Your task to perform on an android device: turn off javascript in the chrome app Image 0: 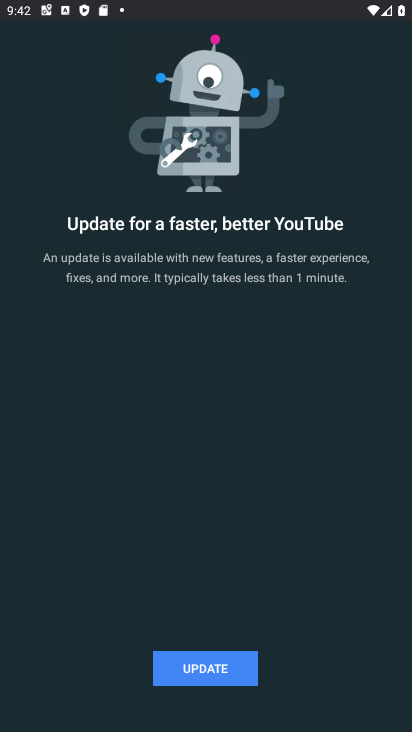
Step 0: press home button
Your task to perform on an android device: turn off javascript in the chrome app Image 1: 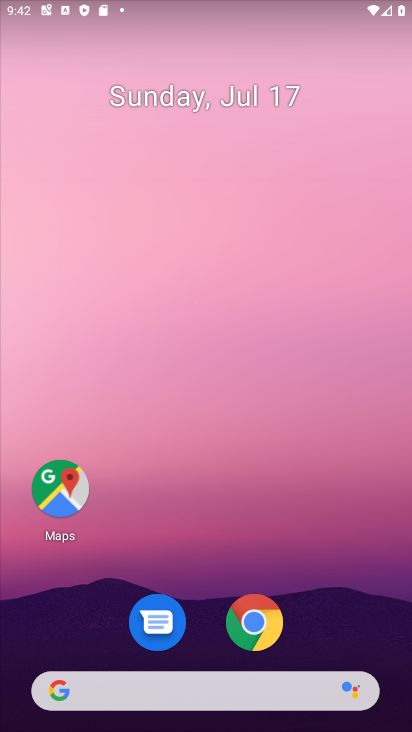
Step 1: click (270, 625)
Your task to perform on an android device: turn off javascript in the chrome app Image 2: 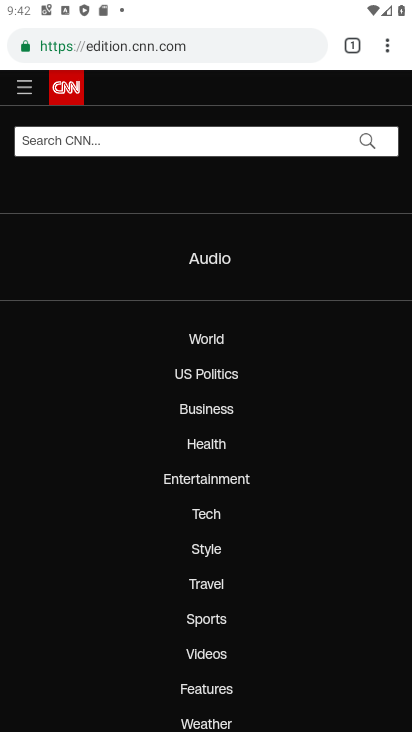
Step 2: click (390, 45)
Your task to perform on an android device: turn off javascript in the chrome app Image 3: 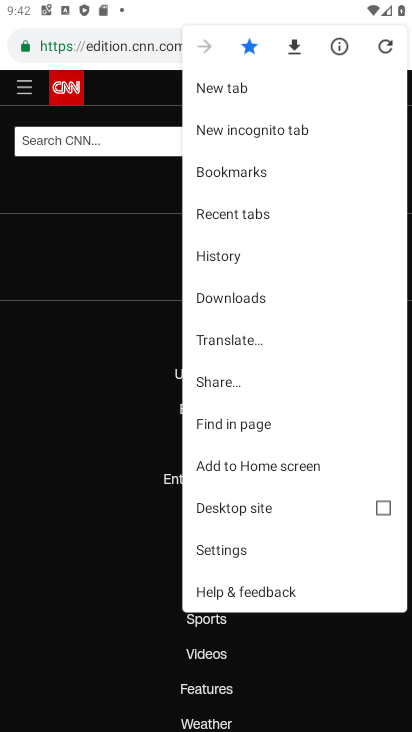
Step 3: click (257, 549)
Your task to perform on an android device: turn off javascript in the chrome app Image 4: 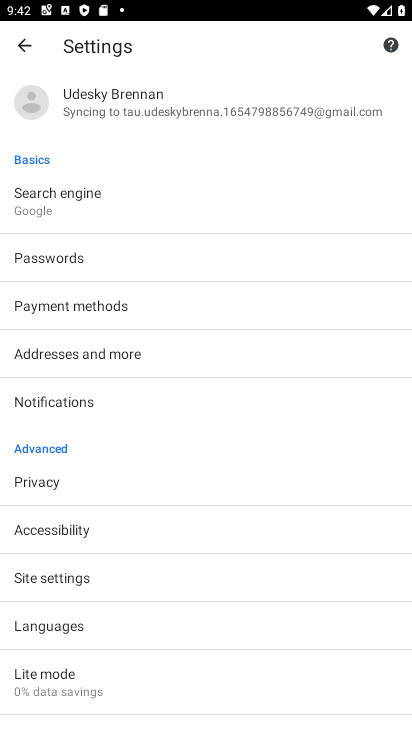
Step 4: click (68, 580)
Your task to perform on an android device: turn off javascript in the chrome app Image 5: 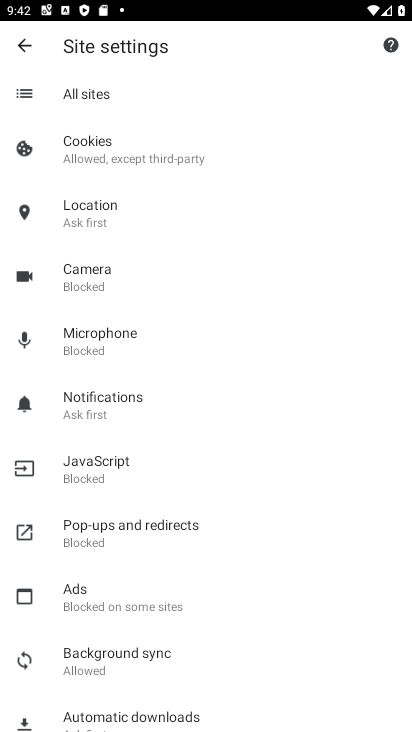
Step 5: click (118, 473)
Your task to perform on an android device: turn off javascript in the chrome app Image 6: 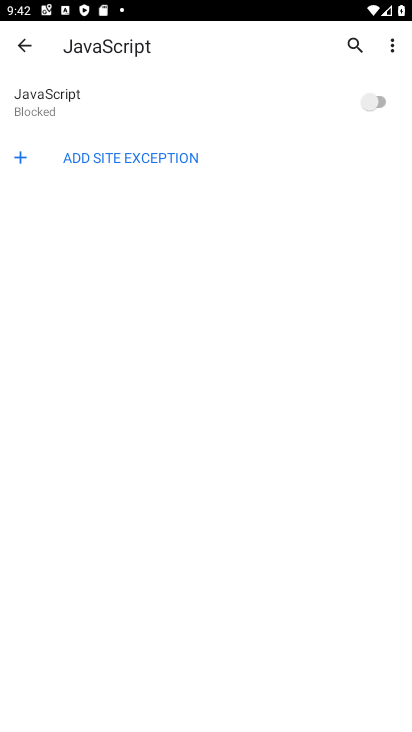
Step 6: task complete